Your task to perform on an android device: Open the stopwatch Image 0: 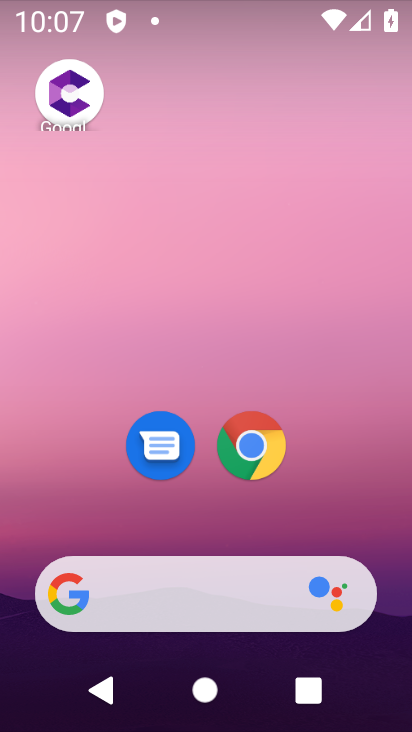
Step 0: drag from (215, 619) to (210, 227)
Your task to perform on an android device: Open the stopwatch Image 1: 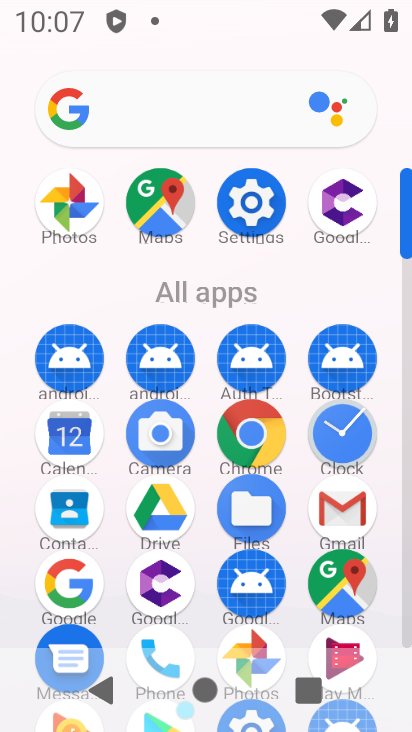
Step 1: click (340, 431)
Your task to perform on an android device: Open the stopwatch Image 2: 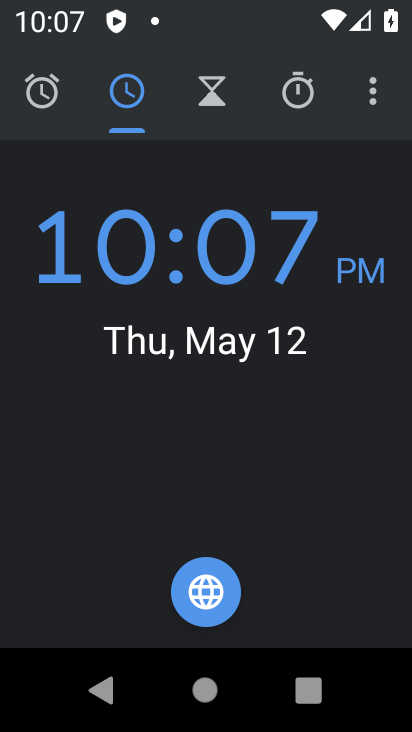
Step 2: click (295, 92)
Your task to perform on an android device: Open the stopwatch Image 3: 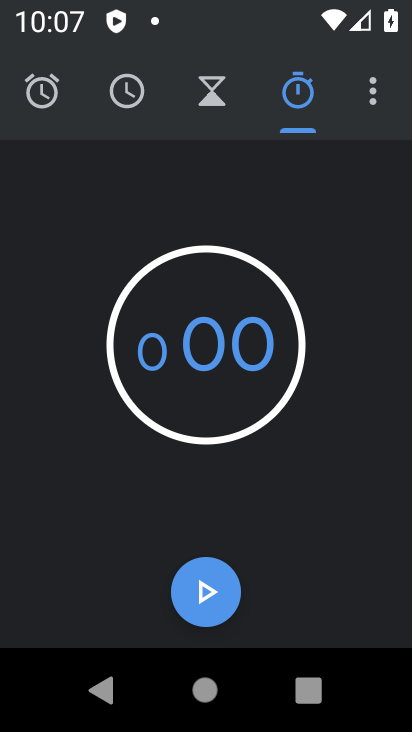
Step 3: task complete